Your task to perform on an android device: install app "Fetch Rewards" Image 0: 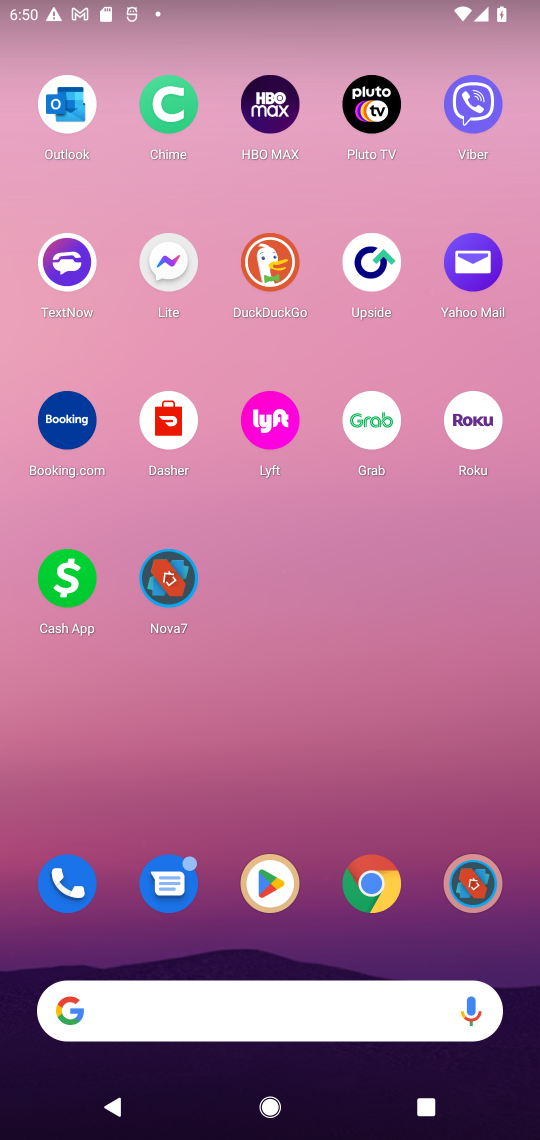
Step 0: click (284, 861)
Your task to perform on an android device: install app "Fetch Rewards" Image 1: 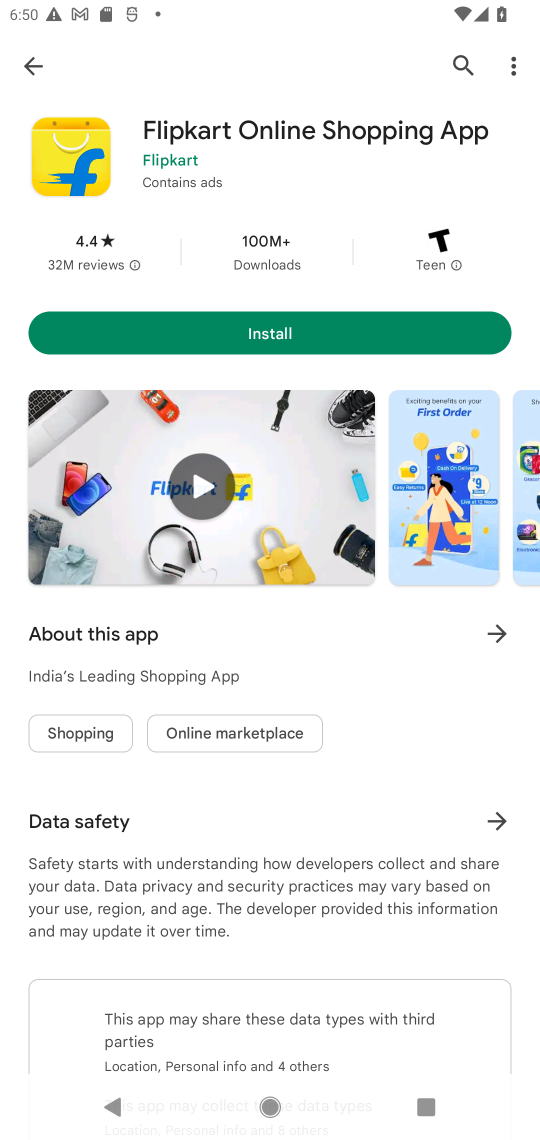
Step 1: click (470, 65)
Your task to perform on an android device: install app "Fetch Rewards" Image 2: 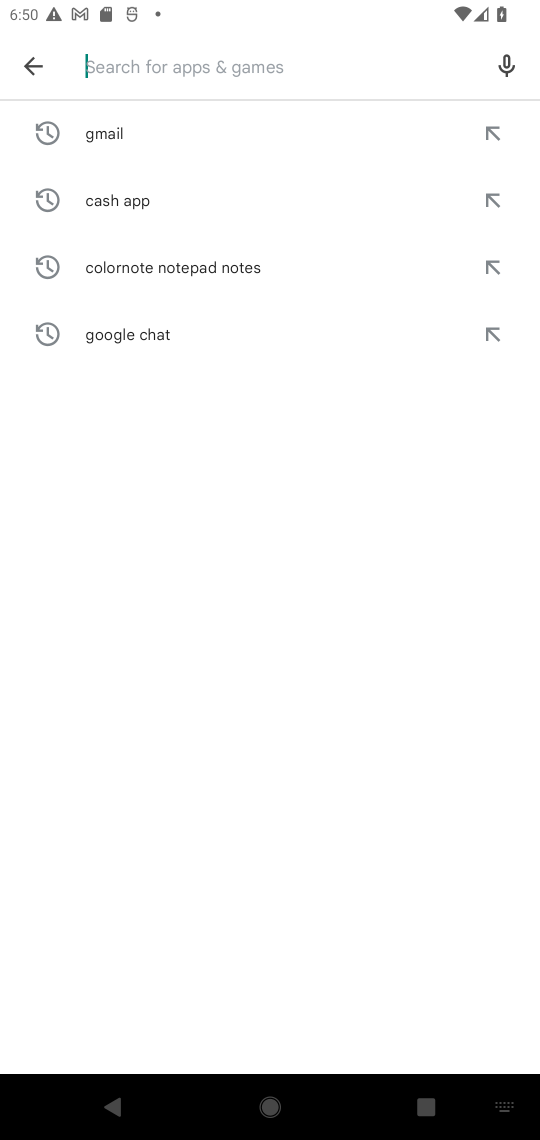
Step 2: type "Fetch Rewards"
Your task to perform on an android device: install app "Fetch Rewards" Image 3: 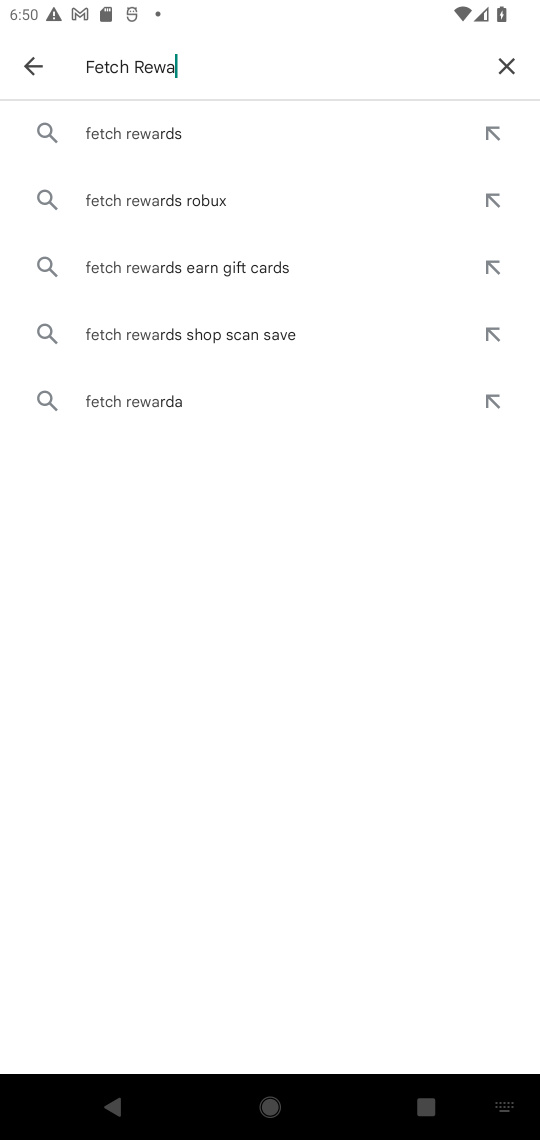
Step 3: type ""
Your task to perform on an android device: install app "Fetch Rewards" Image 4: 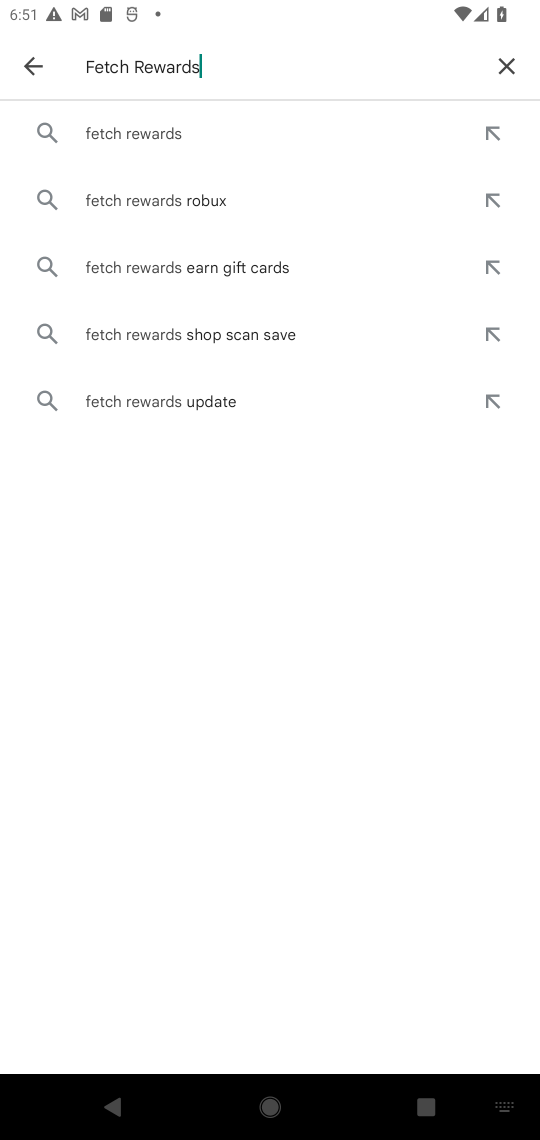
Step 4: click (126, 126)
Your task to perform on an android device: install app "Fetch Rewards" Image 5: 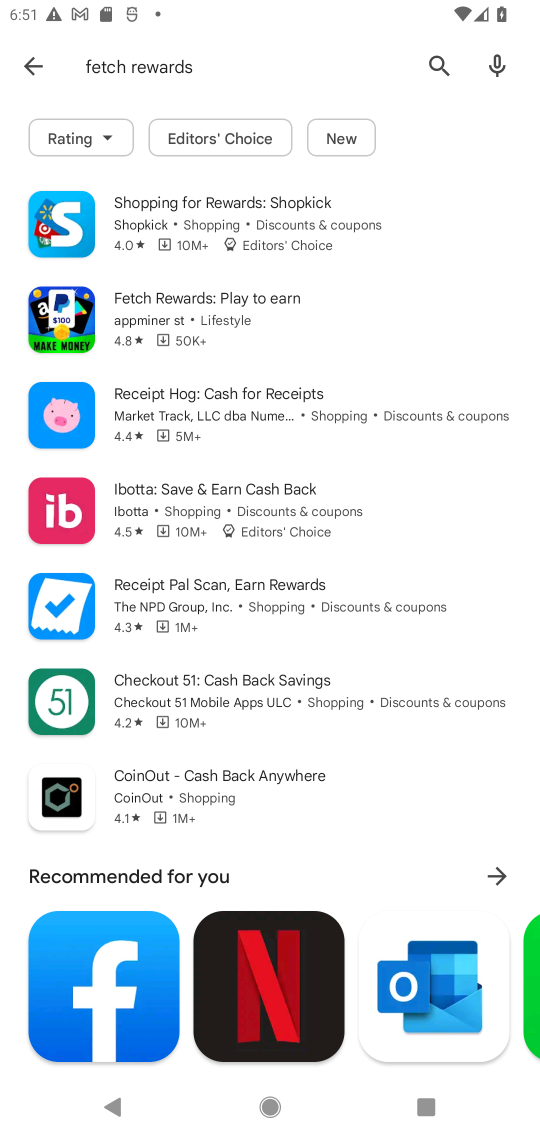
Step 5: task complete